Your task to perform on an android device: turn on wifi Image 0: 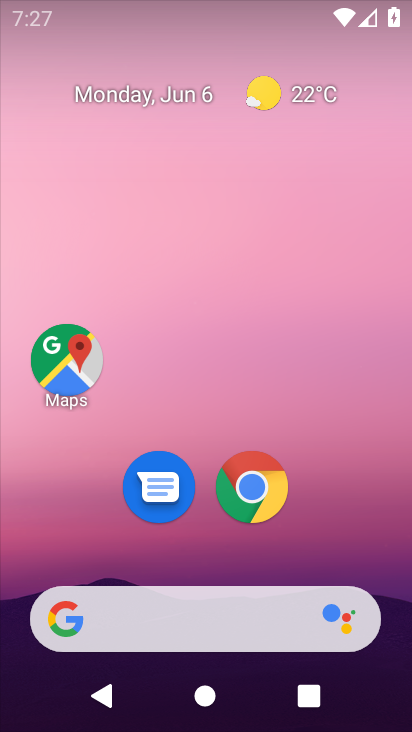
Step 0: drag from (388, 619) to (262, 96)
Your task to perform on an android device: turn on wifi Image 1: 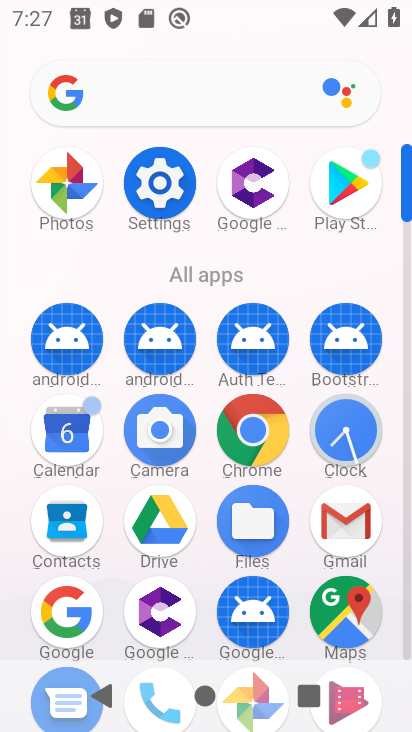
Step 1: task complete